Your task to perform on an android device: turn off sleep mode Image 0: 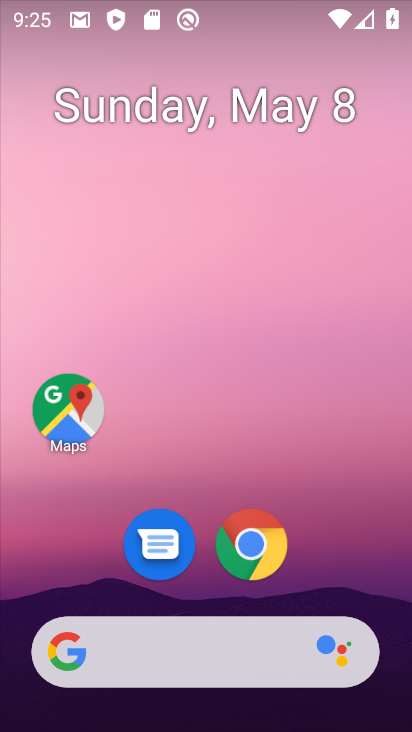
Step 0: drag from (365, 599) to (263, 50)
Your task to perform on an android device: turn off sleep mode Image 1: 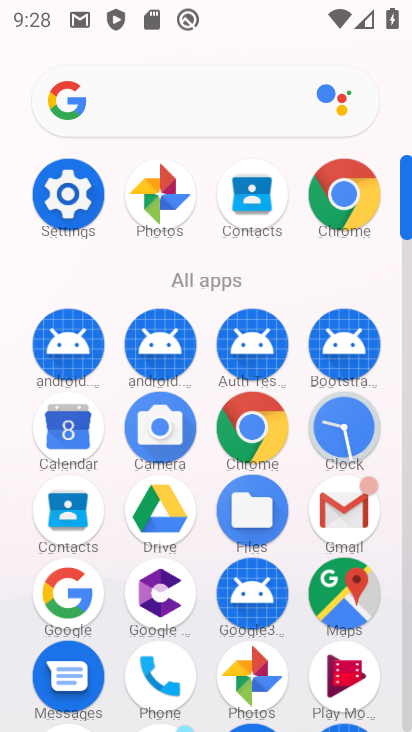
Step 1: click (62, 187)
Your task to perform on an android device: turn off sleep mode Image 2: 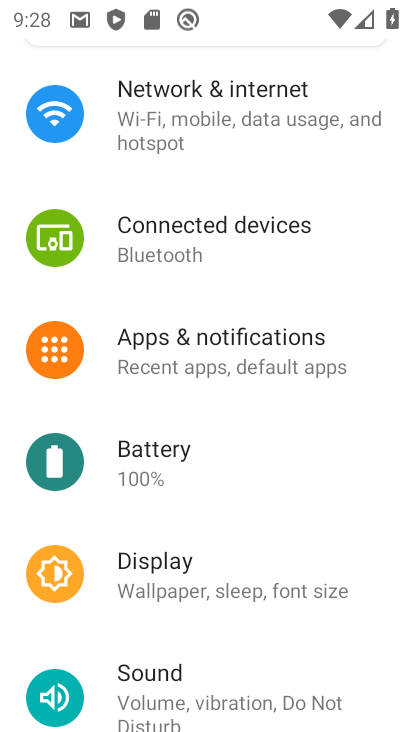
Step 2: click (193, 577)
Your task to perform on an android device: turn off sleep mode Image 3: 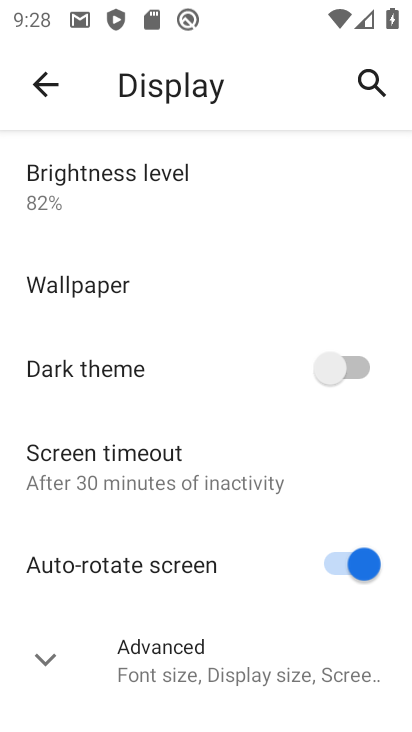
Step 3: click (228, 491)
Your task to perform on an android device: turn off sleep mode Image 4: 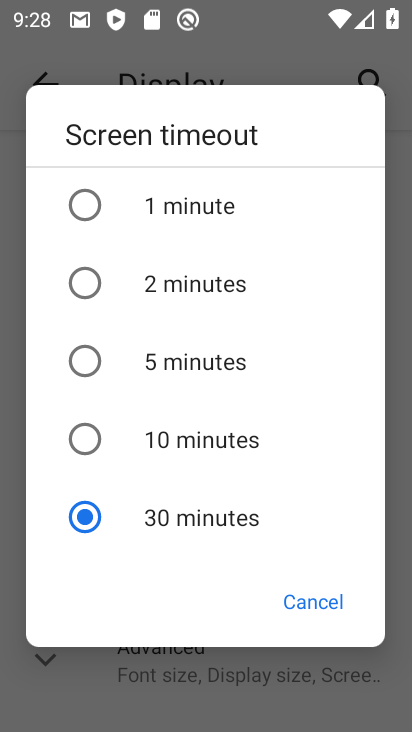
Step 4: click (195, 221)
Your task to perform on an android device: turn off sleep mode Image 5: 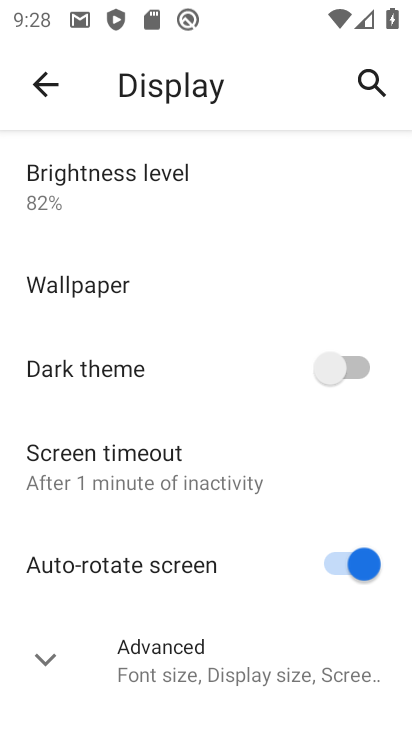
Step 5: task complete